Your task to perform on an android device: Open Youtube and go to the subscriptions tab Image 0: 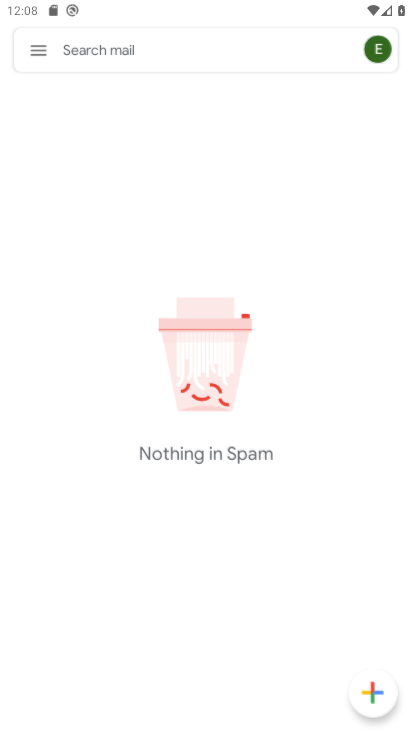
Step 0: drag from (196, 634) to (180, 105)
Your task to perform on an android device: Open Youtube and go to the subscriptions tab Image 1: 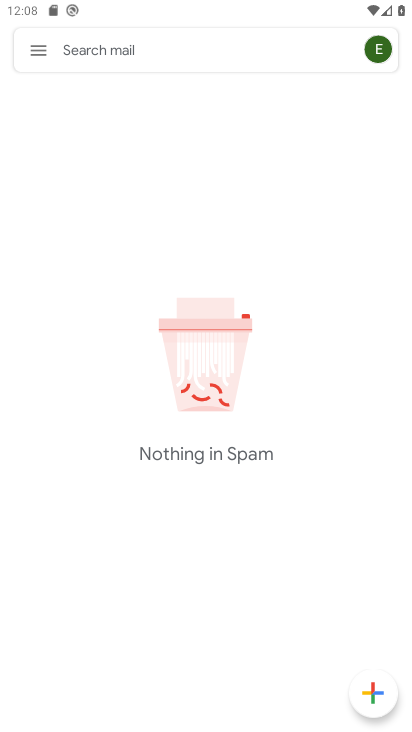
Step 1: press home button
Your task to perform on an android device: Open Youtube and go to the subscriptions tab Image 2: 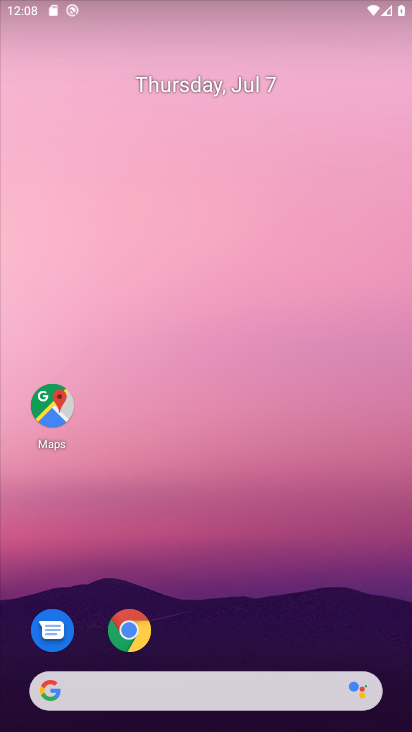
Step 2: drag from (232, 539) to (252, 0)
Your task to perform on an android device: Open Youtube and go to the subscriptions tab Image 3: 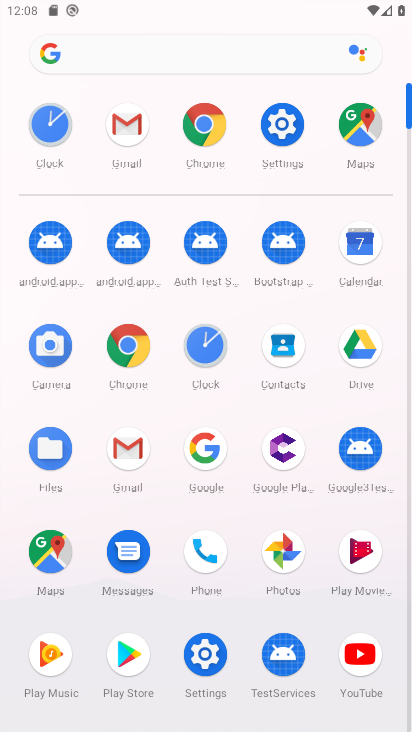
Step 3: click (359, 672)
Your task to perform on an android device: Open Youtube and go to the subscriptions tab Image 4: 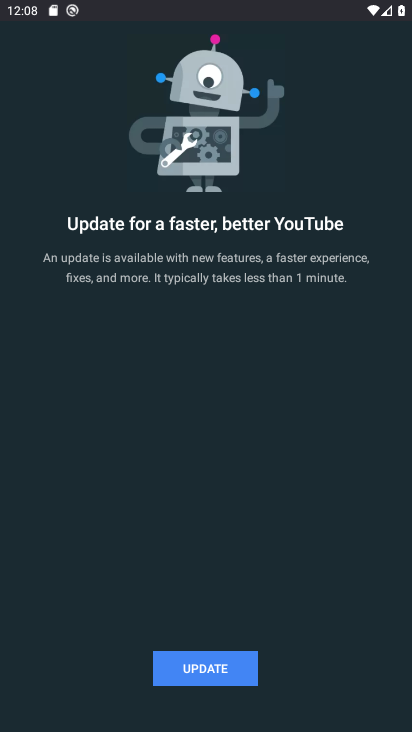
Step 4: click (222, 664)
Your task to perform on an android device: Open Youtube and go to the subscriptions tab Image 5: 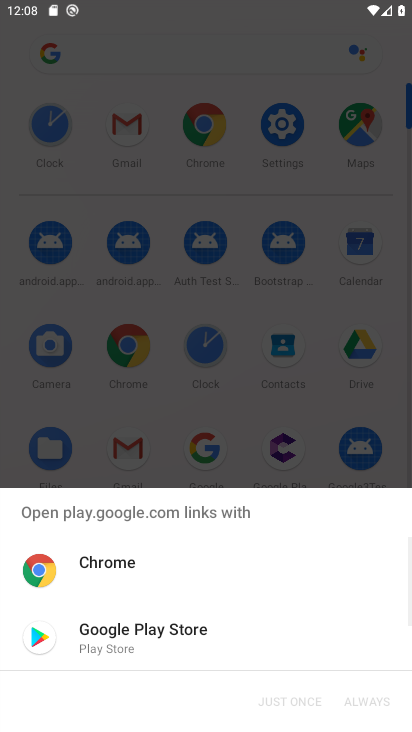
Step 5: click (109, 635)
Your task to perform on an android device: Open Youtube and go to the subscriptions tab Image 6: 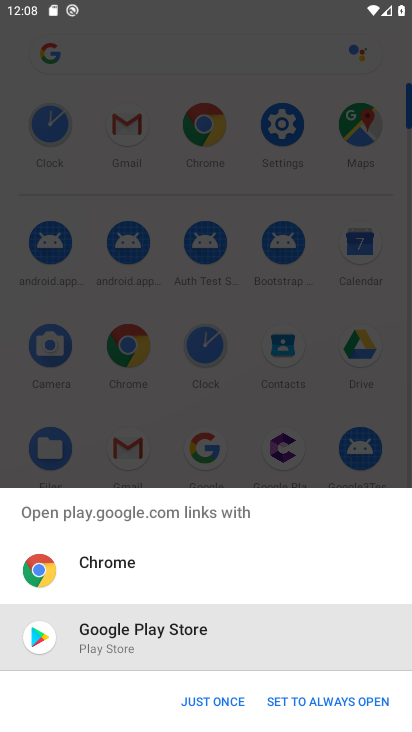
Step 6: click (205, 701)
Your task to perform on an android device: Open Youtube and go to the subscriptions tab Image 7: 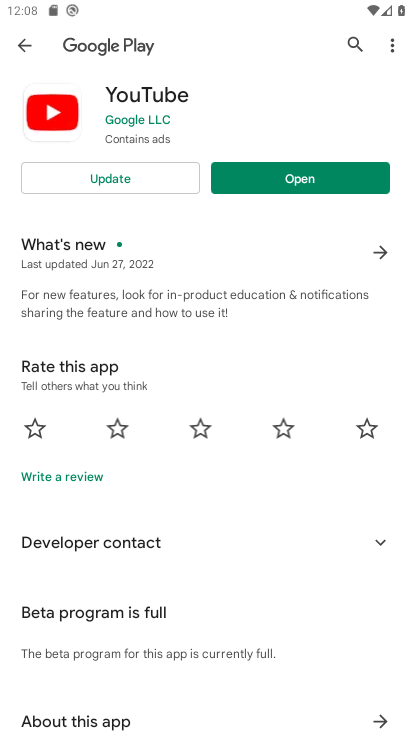
Step 7: click (142, 186)
Your task to perform on an android device: Open Youtube and go to the subscriptions tab Image 8: 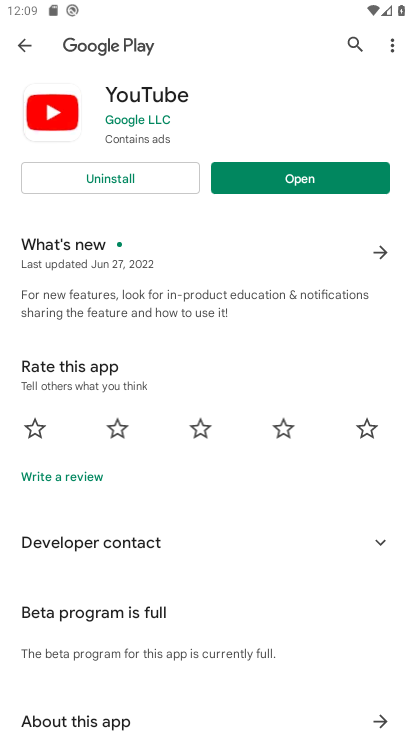
Step 8: click (347, 170)
Your task to perform on an android device: Open Youtube and go to the subscriptions tab Image 9: 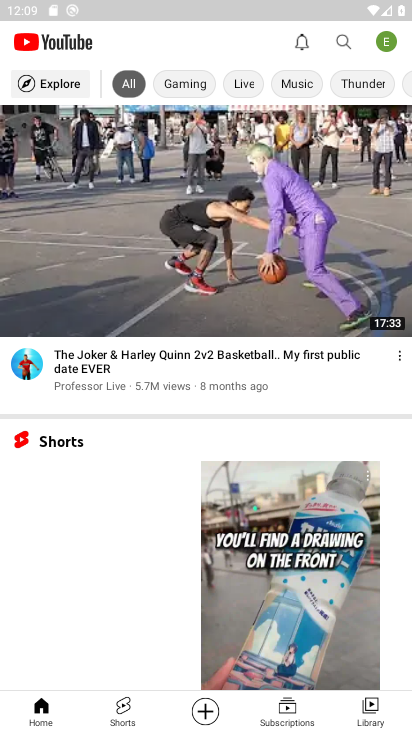
Step 9: click (289, 703)
Your task to perform on an android device: Open Youtube and go to the subscriptions tab Image 10: 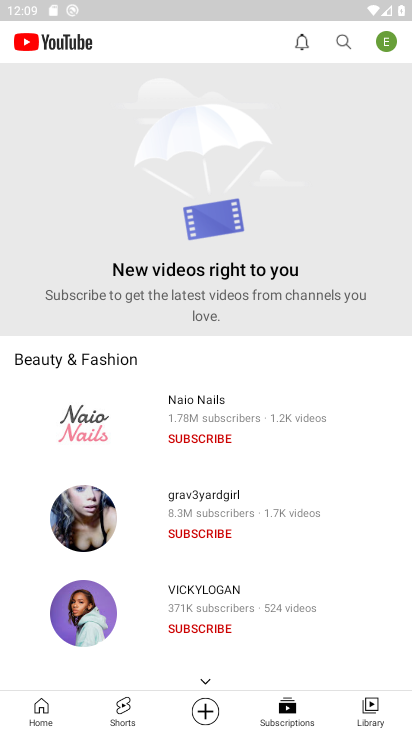
Step 10: task complete